Your task to perform on an android device: Open Chrome and go to settings Image 0: 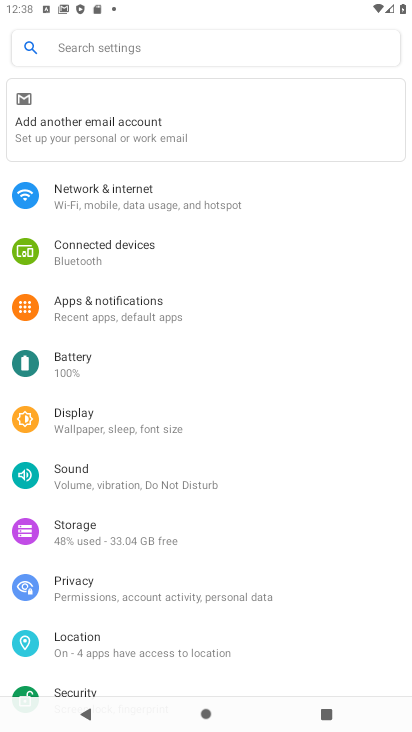
Step 0: press home button
Your task to perform on an android device: Open Chrome and go to settings Image 1: 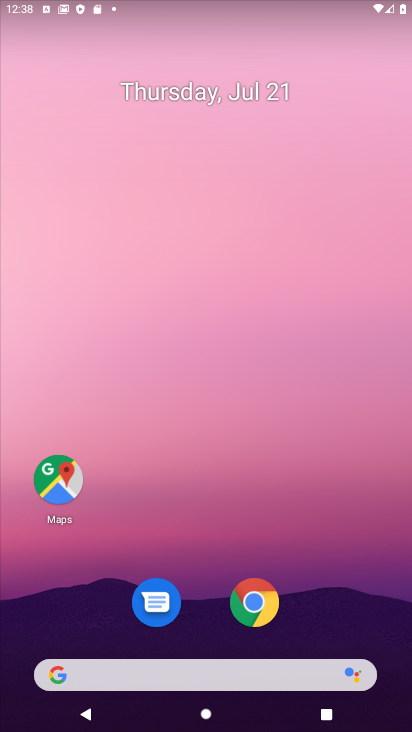
Step 1: drag from (398, 641) to (265, 71)
Your task to perform on an android device: Open Chrome and go to settings Image 2: 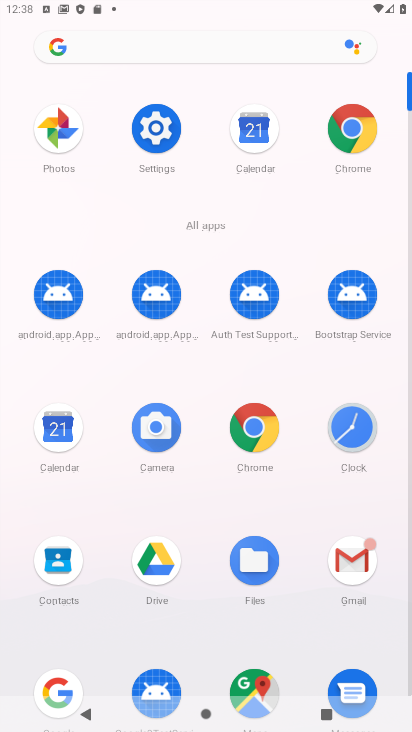
Step 2: click (258, 447)
Your task to perform on an android device: Open Chrome and go to settings Image 3: 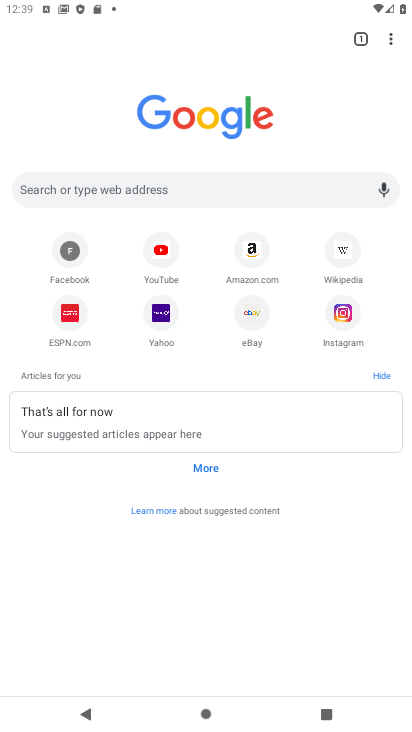
Step 3: click (394, 37)
Your task to perform on an android device: Open Chrome and go to settings Image 4: 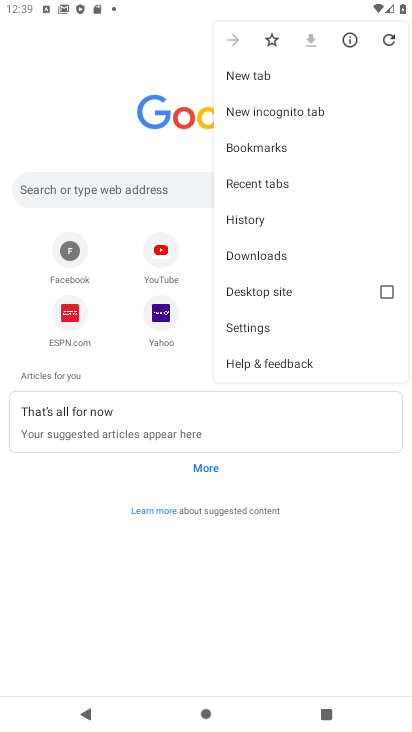
Step 4: click (254, 331)
Your task to perform on an android device: Open Chrome and go to settings Image 5: 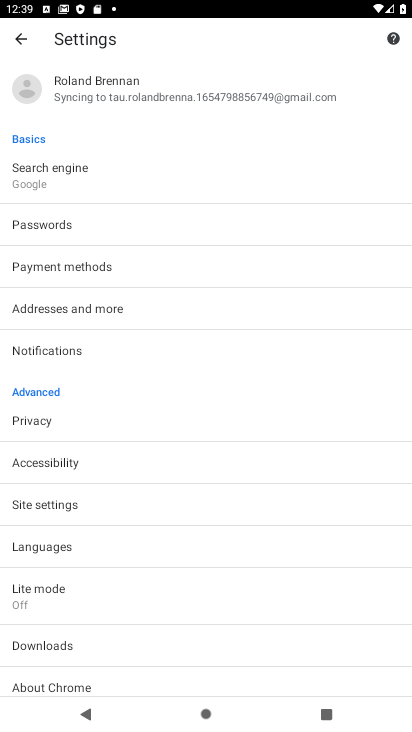
Step 5: task complete